Your task to perform on an android device: toggle priority inbox in the gmail app Image 0: 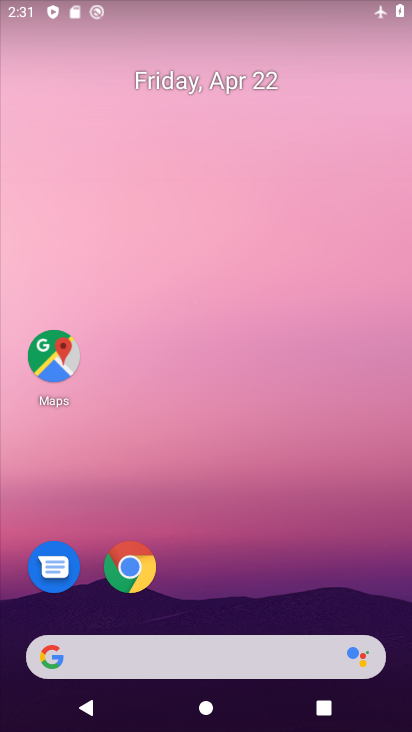
Step 0: drag from (258, 651) to (223, 149)
Your task to perform on an android device: toggle priority inbox in the gmail app Image 1: 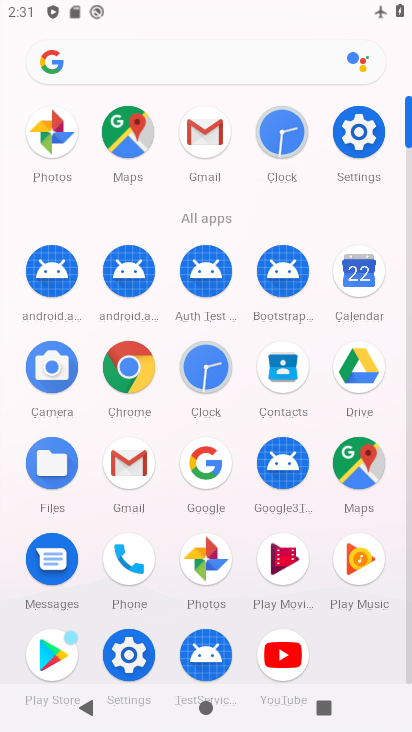
Step 1: click (126, 460)
Your task to perform on an android device: toggle priority inbox in the gmail app Image 2: 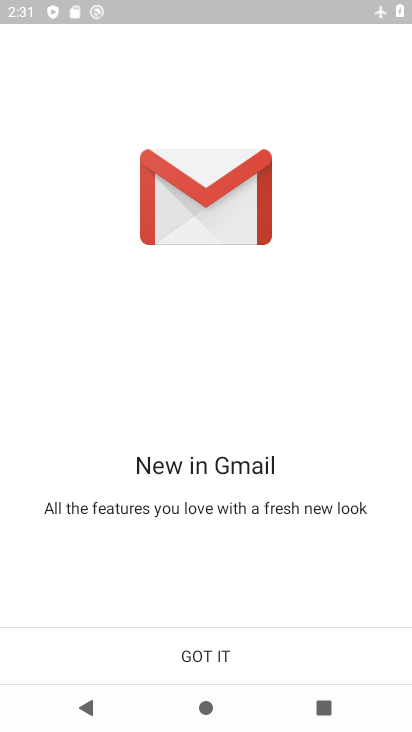
Step 2: click (217, 652)
Your task to perform on an android device: toggle priority inbox in the gmail app Image 3: 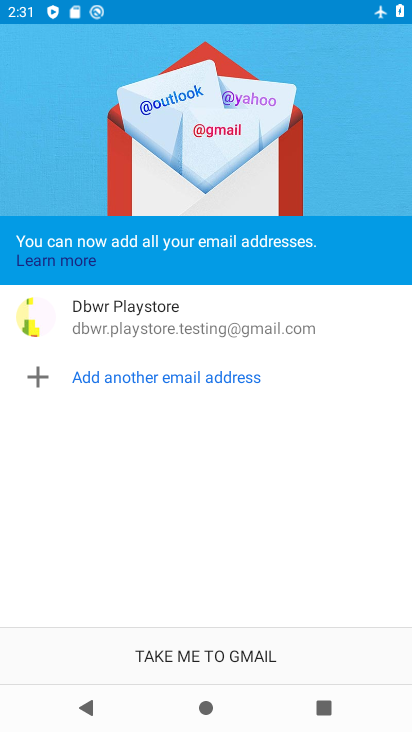
Step 3: click (217, 652)
Your task to perform on an android device: toggle priority inbox in the gmail app Image 4: 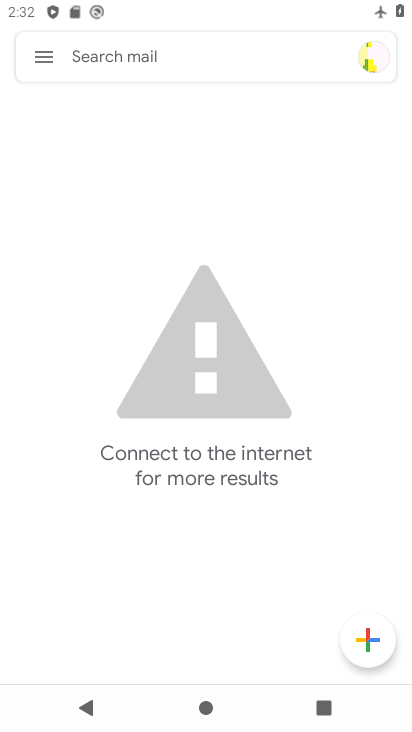
Step 4: task complete